Your task to perform on an android device: clear history in the chrome app Image 0: 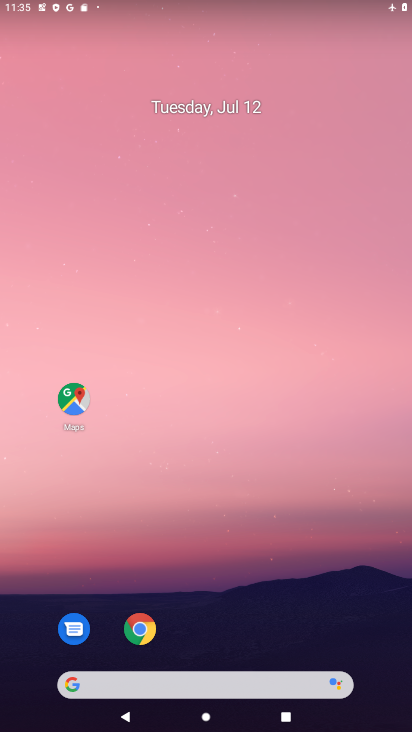
Step 0: drag from (207, 640) to (229, 262)
Your task to perform on an android device: clear history in the chrome app Image 1: 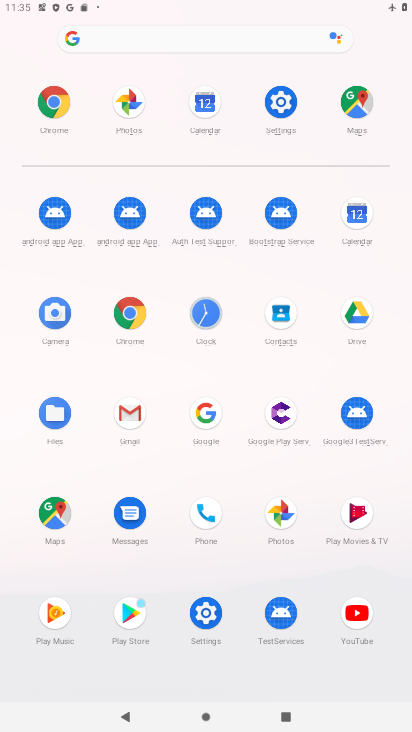
Step 1: click (127, 309)
Your task to perform on an android device: clear history in the chrome app Image 2: 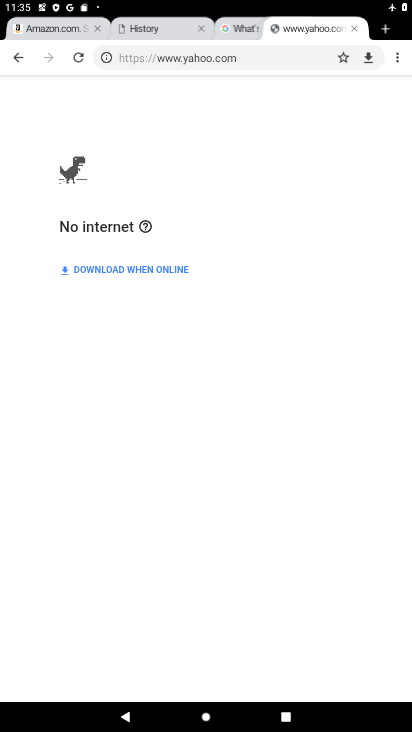
Step 2: click (401, 56)
Your task to perform on an android device: clear history in the chrome app Image 3: 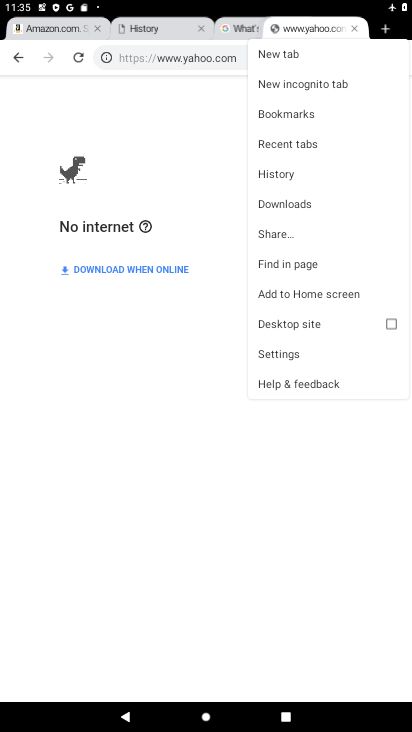
Step 3: click (286, 170)
Your task to perform on an android device: clear history in the chrome app Image 4: 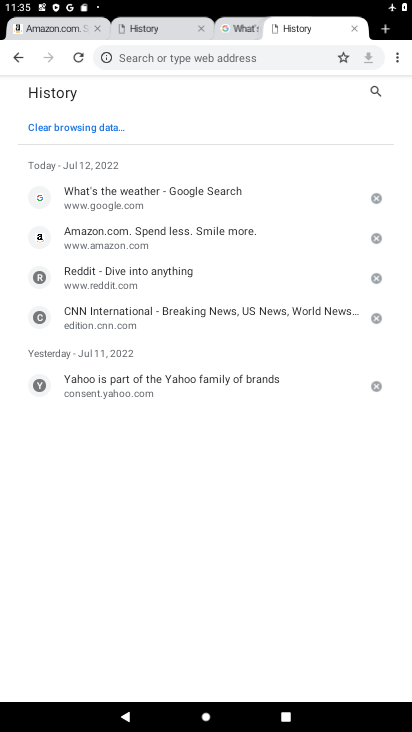
Step 4: click (56, 124)
Your task to perform on an android device: clear history in the chrome app Image 5: 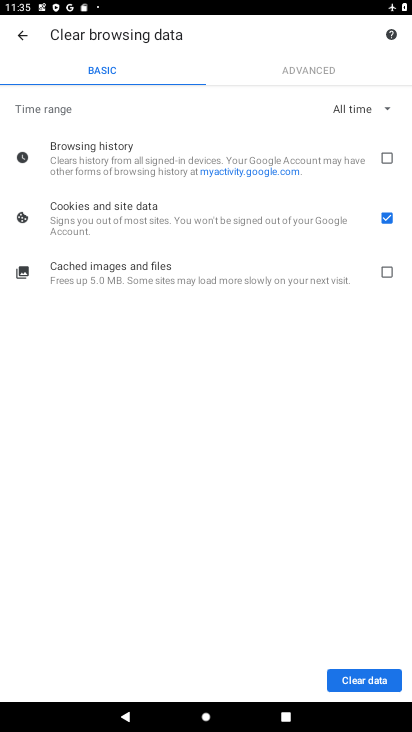
Step 5: click (350, 675)
Your task to perform on an android device: clear history in the chrome app Image 6: 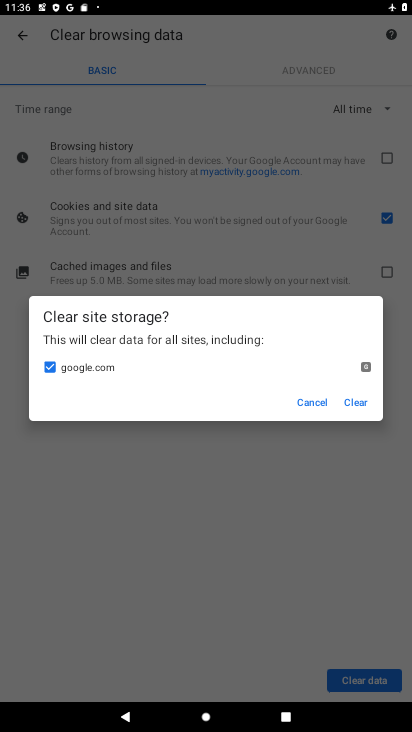
Step 6: click (362, 399)
Your task to perform on an android device: clear history in the chrome app Image 7: 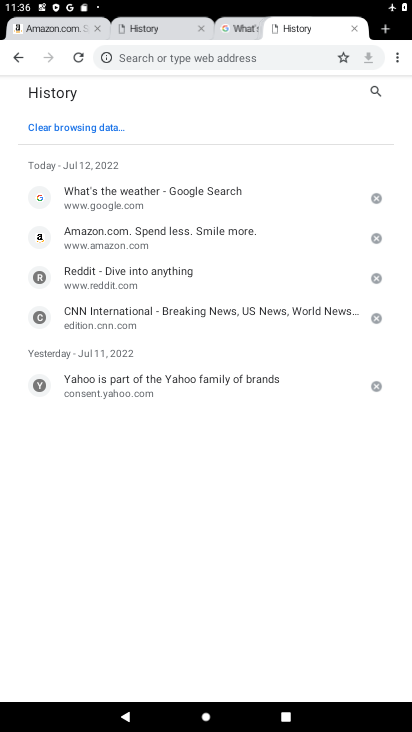
Step 7: click (90, 118)
Your task to perform on an android device: clear history in the chrome app Image 8: 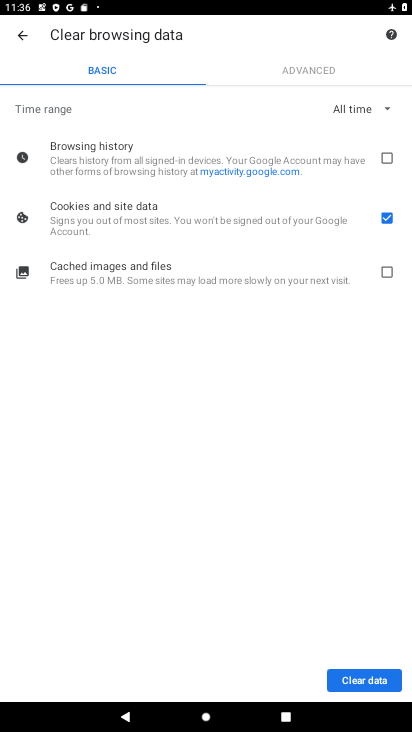
Step 8: click (367, 680)
Your task to perform on an android device: clear history in the chrome app Image 9: 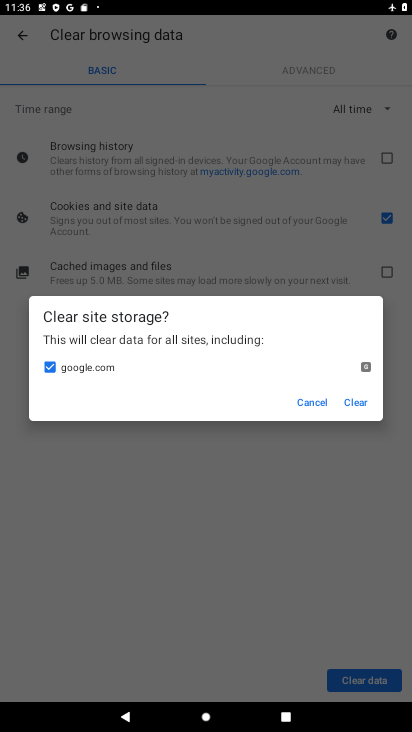
Step 9: click (347, 399)
Your task to perform on an android device: clear history in the chrome app Image 10: 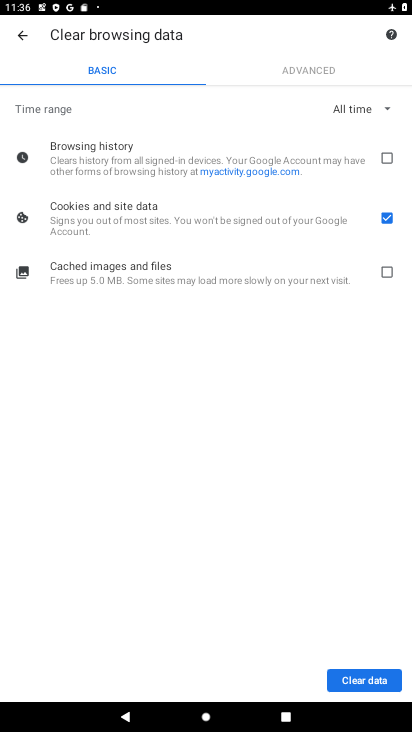
Step 10: task complete